Your task to perform on an android device: toggle wifi Image 0: 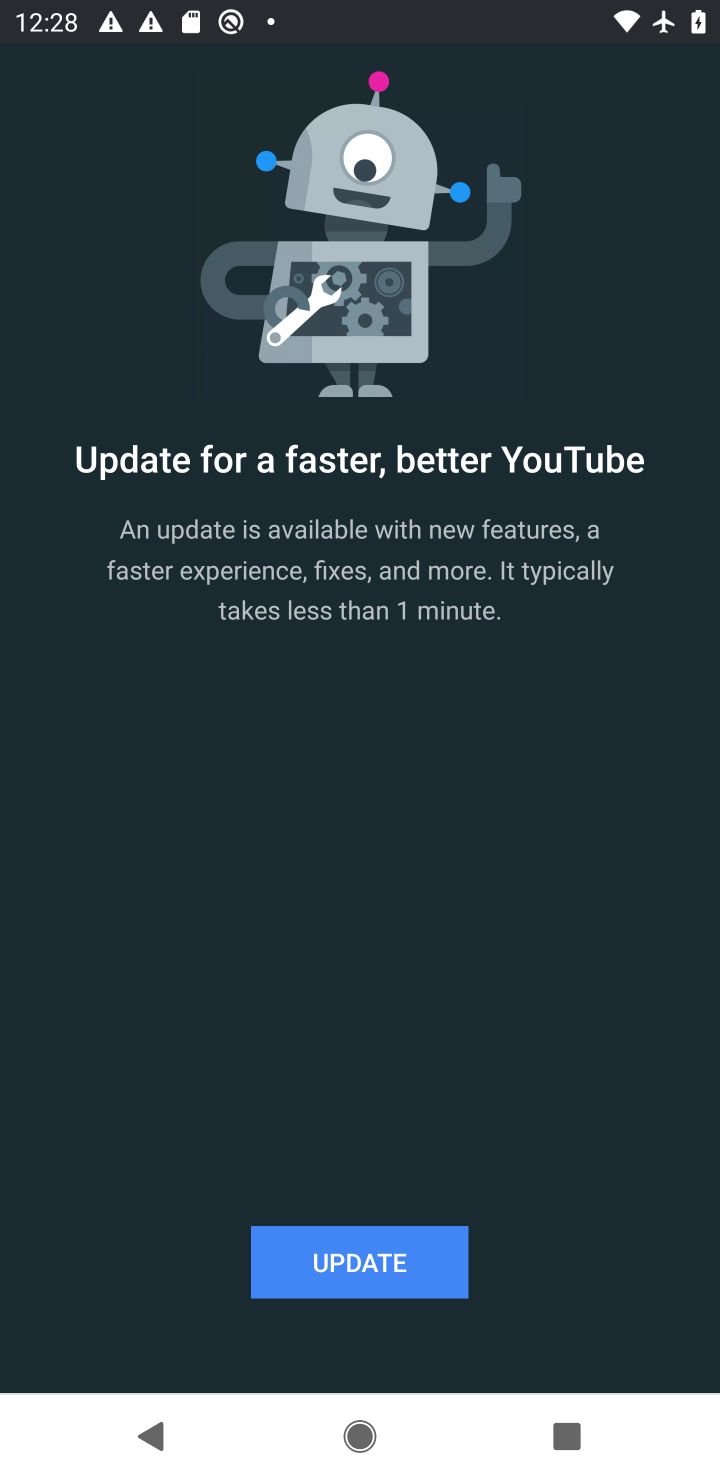
Step 0: press home button
Your task to perform on an android device: toggle wifi Image 1: 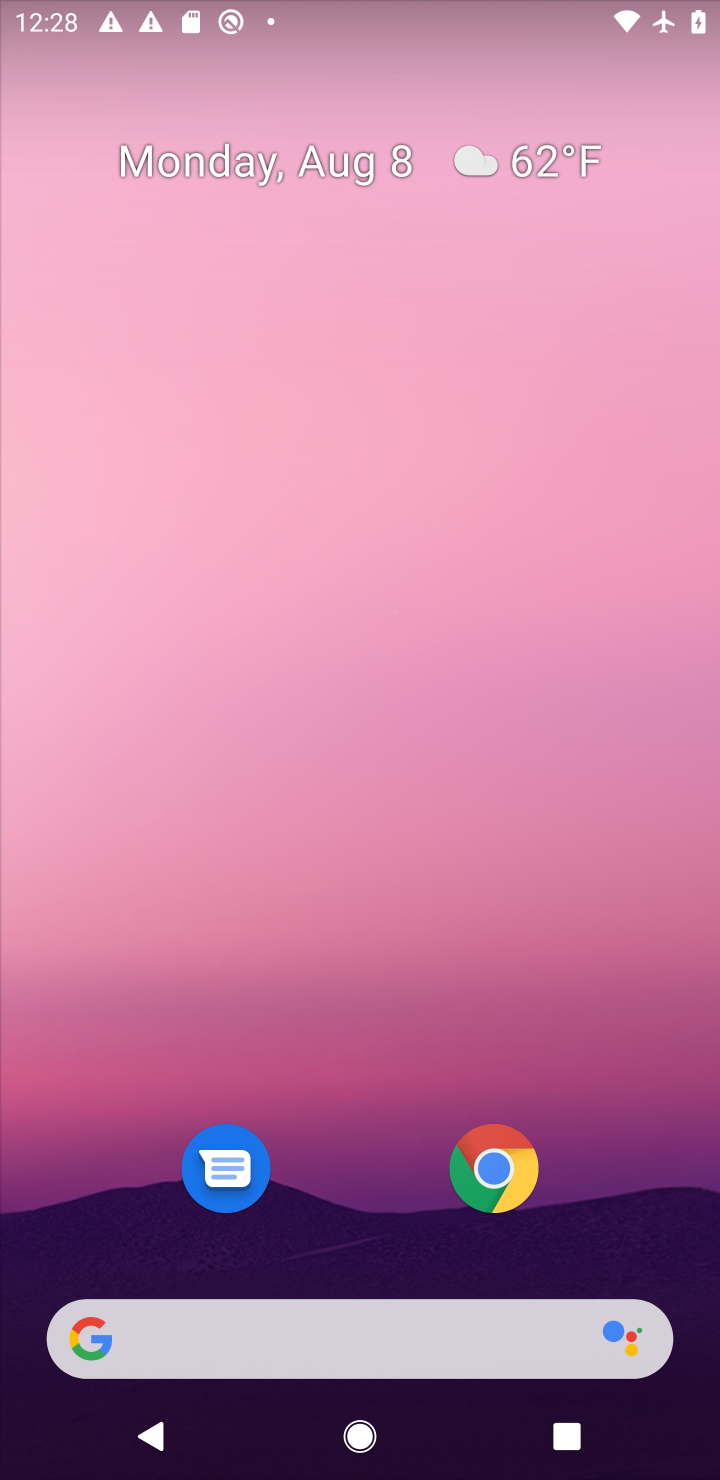
Step 1: drag from (376, 1280) to (280, 77)
Your task to perform on an android device: toggle wifi Image 2: 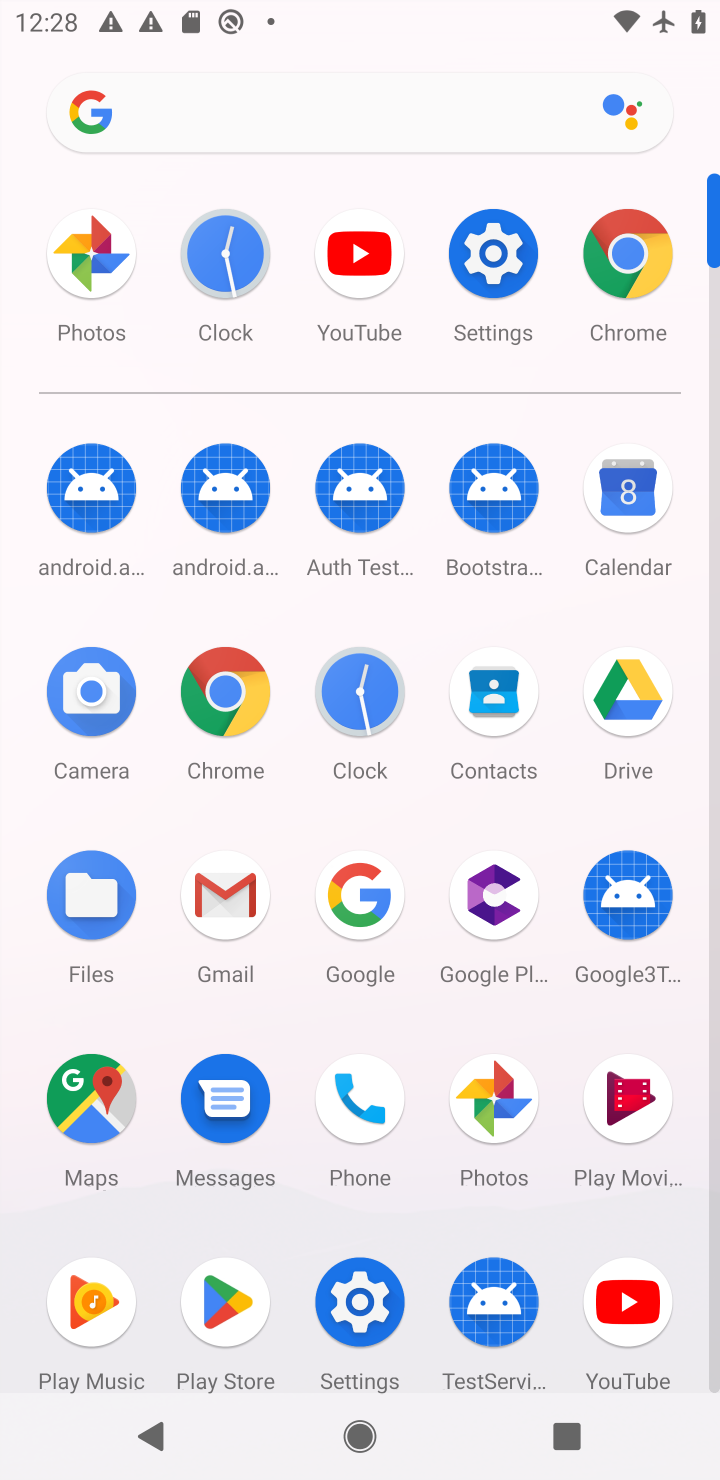
Step 2: click (496, 330)
Your task to perform on an android device: toggle wifi Image 3: 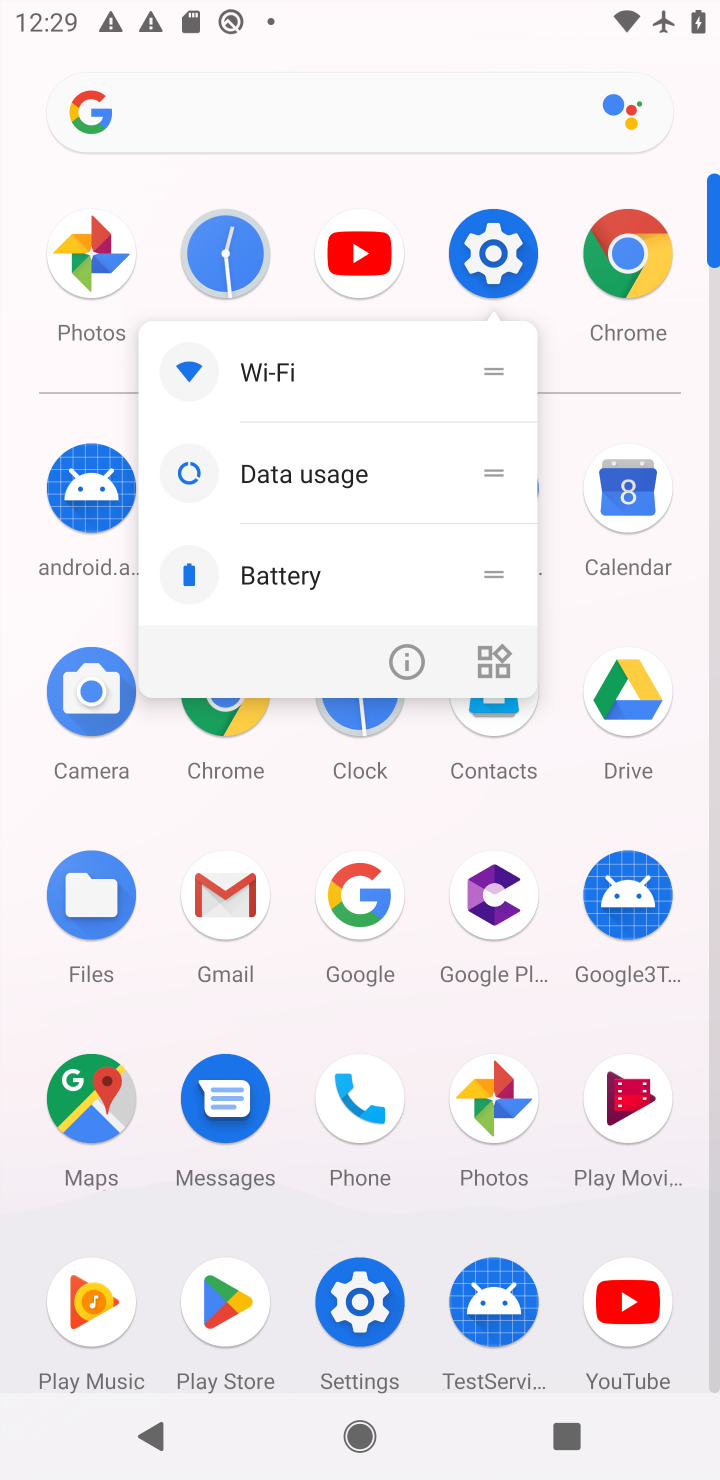
Step 3: click (237, 373)
Your task to perform on an android device: toggle wifi Image 4: 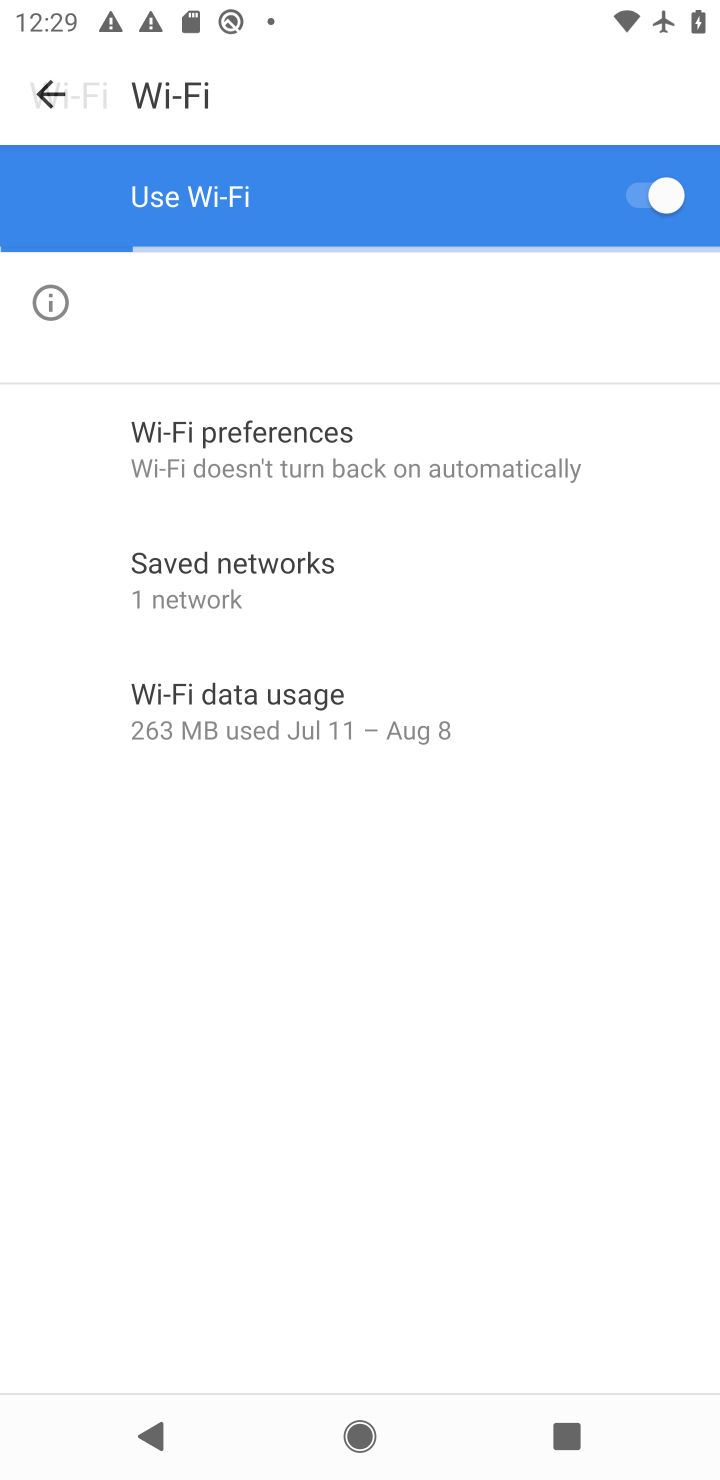
Step 4: task complete